Your task to perform on an android device: Search for bose soundsport free on target.com, select the first entry, add it to the cart, then select checkout. Image 0: 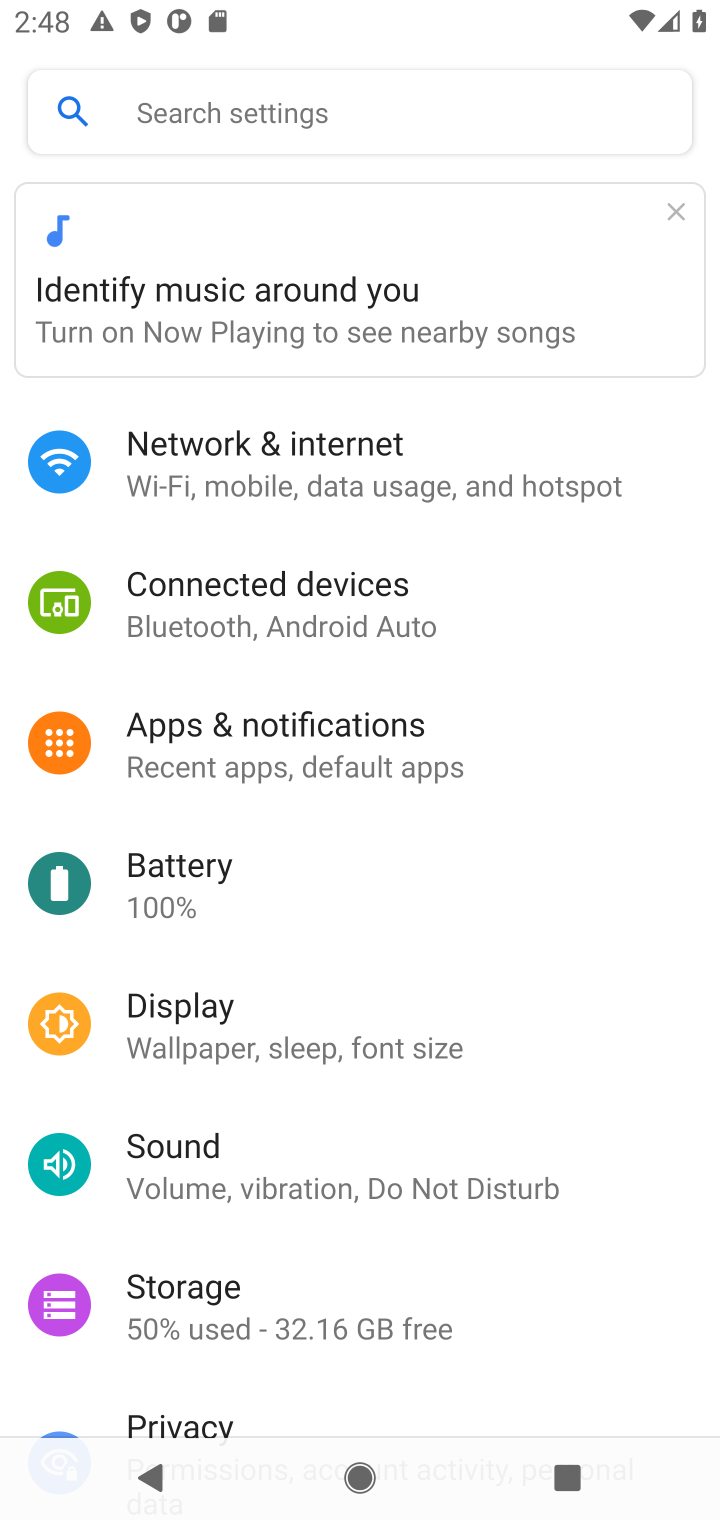
Step 0: press home button
Your task to perform on an android device: Search for bose soundsport free on target.com, select the first entry, add it to the cart, then select checkout. Image 1: 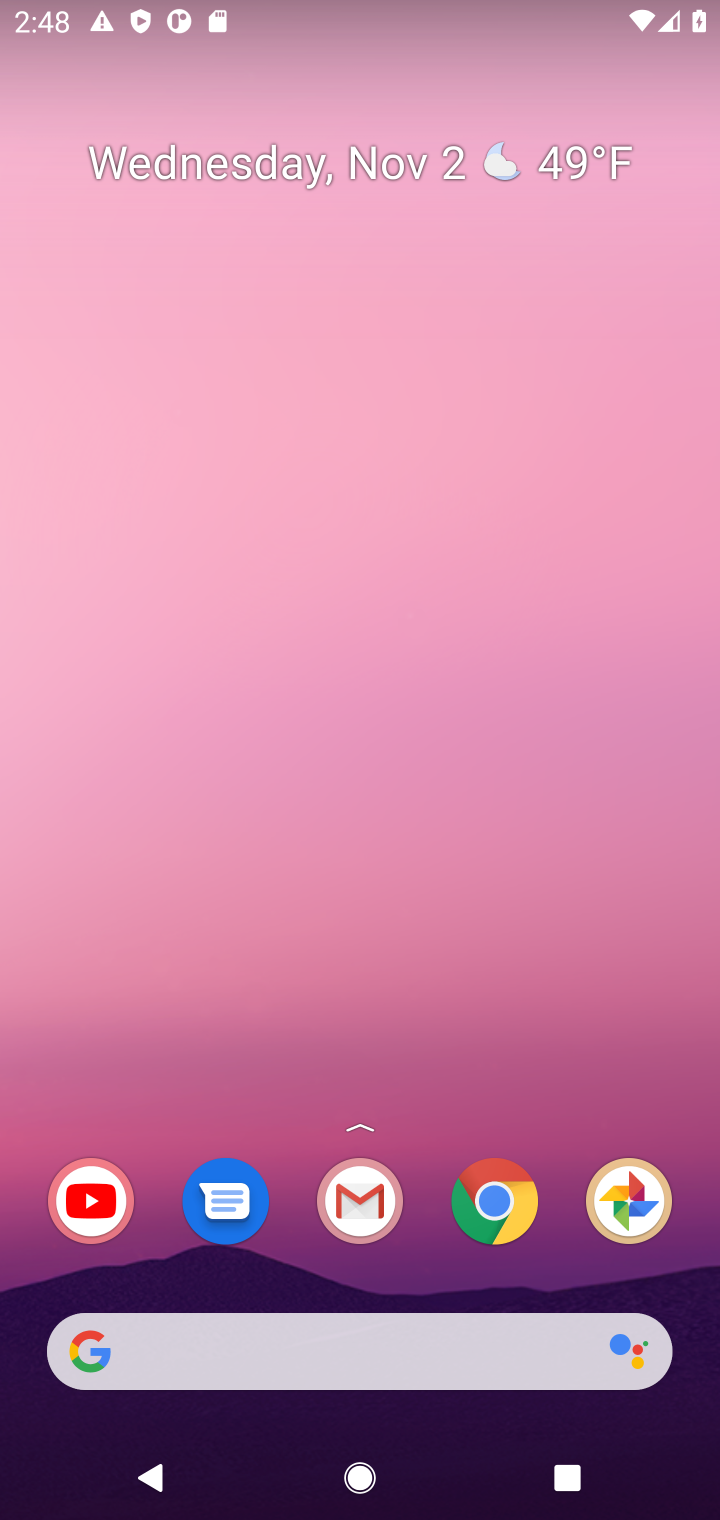
Step 1: click (494, 1199)
Your task to perform on an android device: Search for bose soundsport free on target.com, select the first entry, add it to the cart, then select checkout. Image 2: 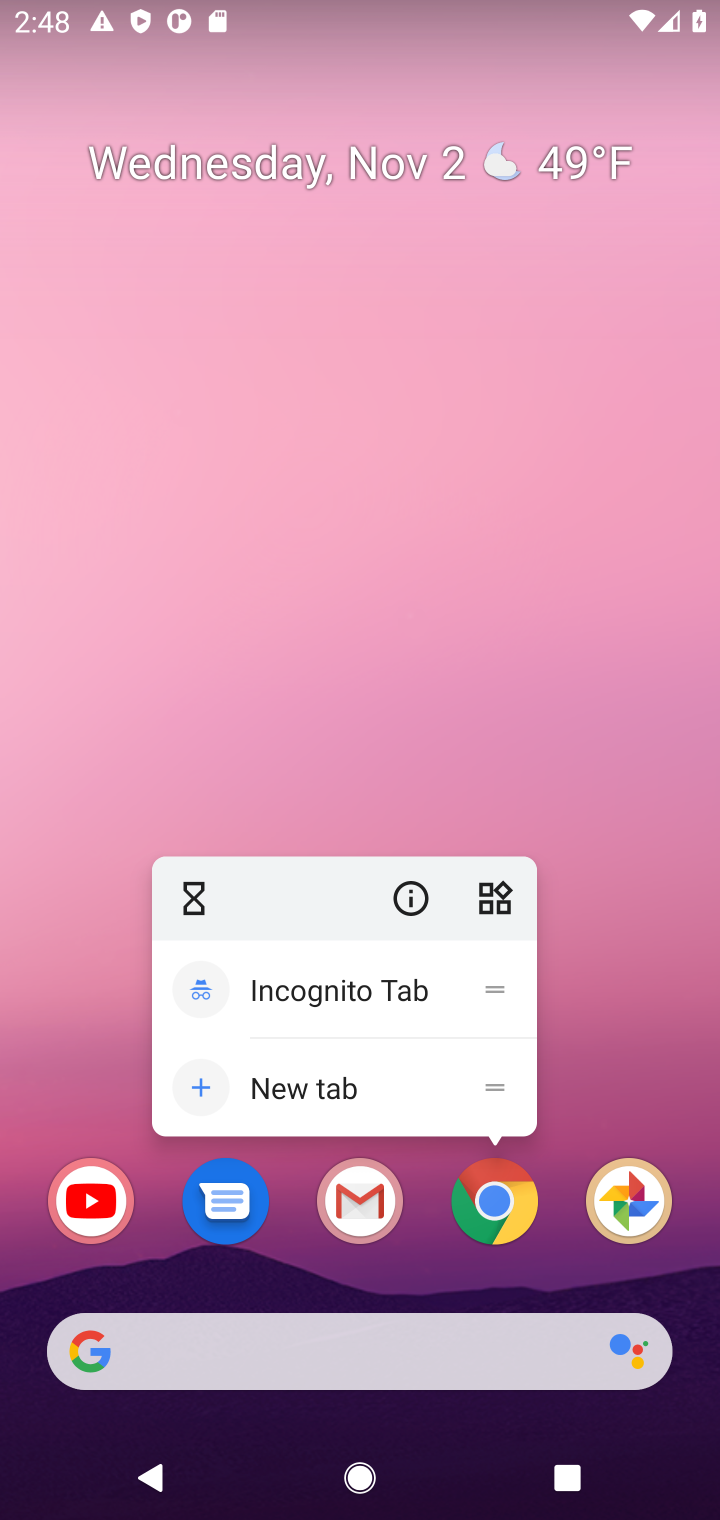
Step 2: click (494, 1201)
Your task to perform on an android device: Search for bose soundsport free on target.com, select the first entry, add it to the cart, then select checkout. Image 3: 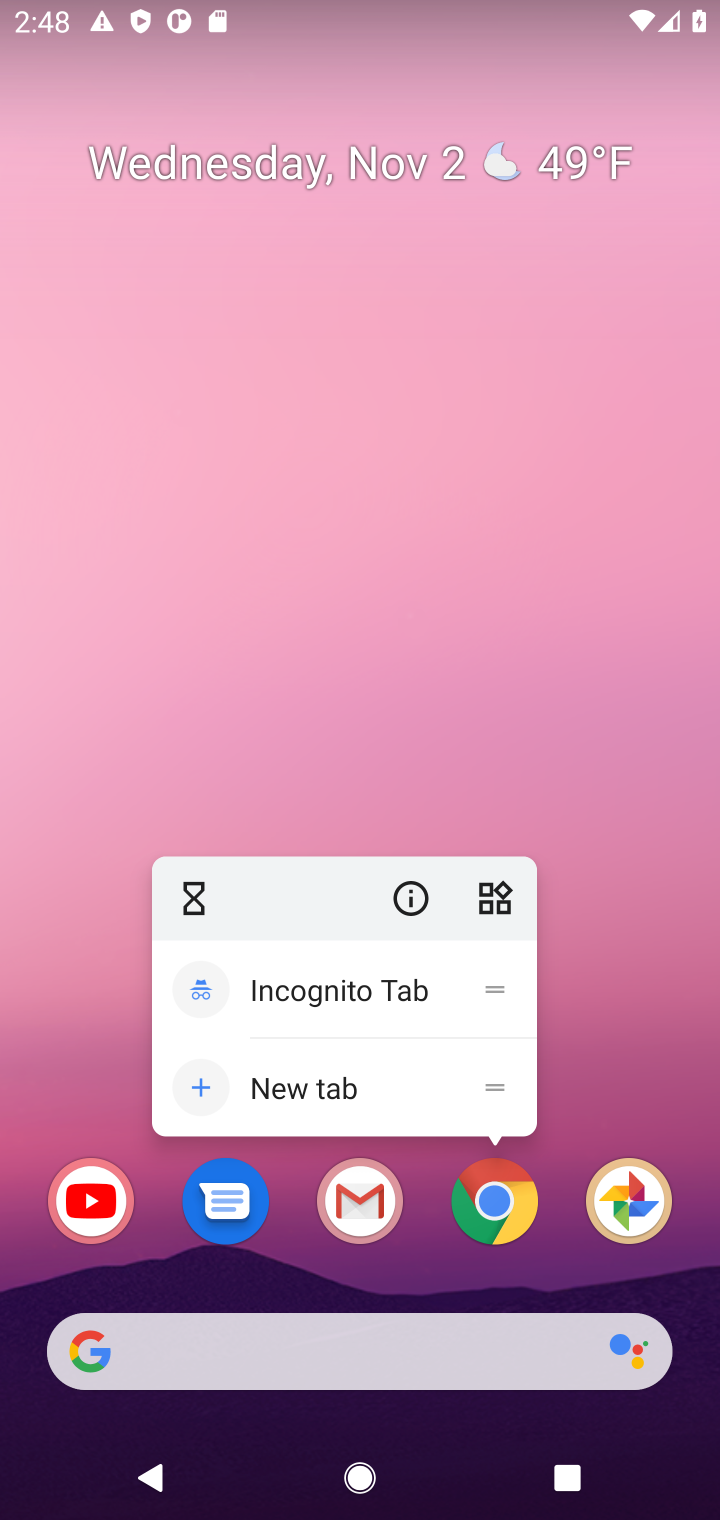
Step 3: click (494, 1198)
Your task to perform on an android device: Search for bose soundsport free on target.com, select the first entry, add it to the cart, then select checkout. Image 4: 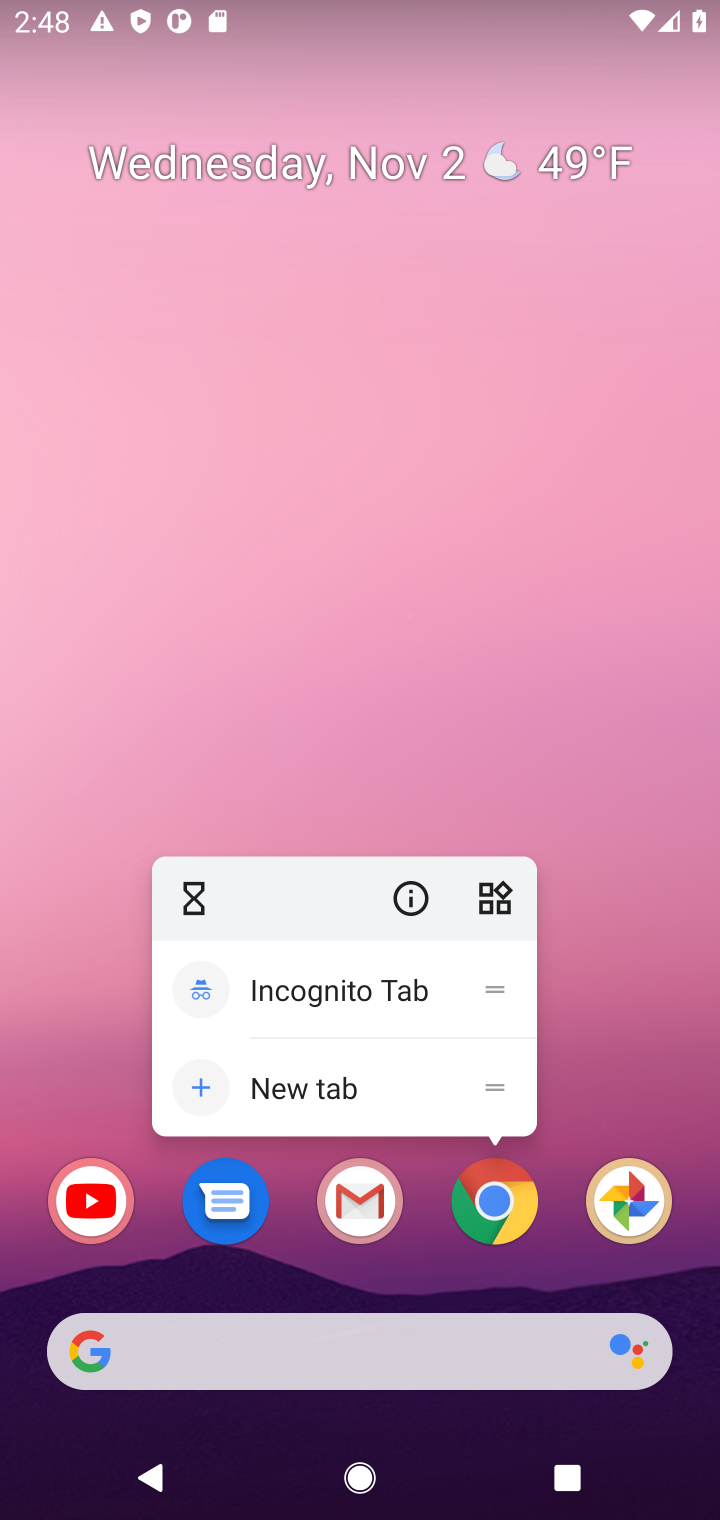
Step 4: click (494, 1198)
Your task to perform on an android device: Search for bose soundsport free on target.com, select the first entry, add it to the cart, then select checkout. Image 5: 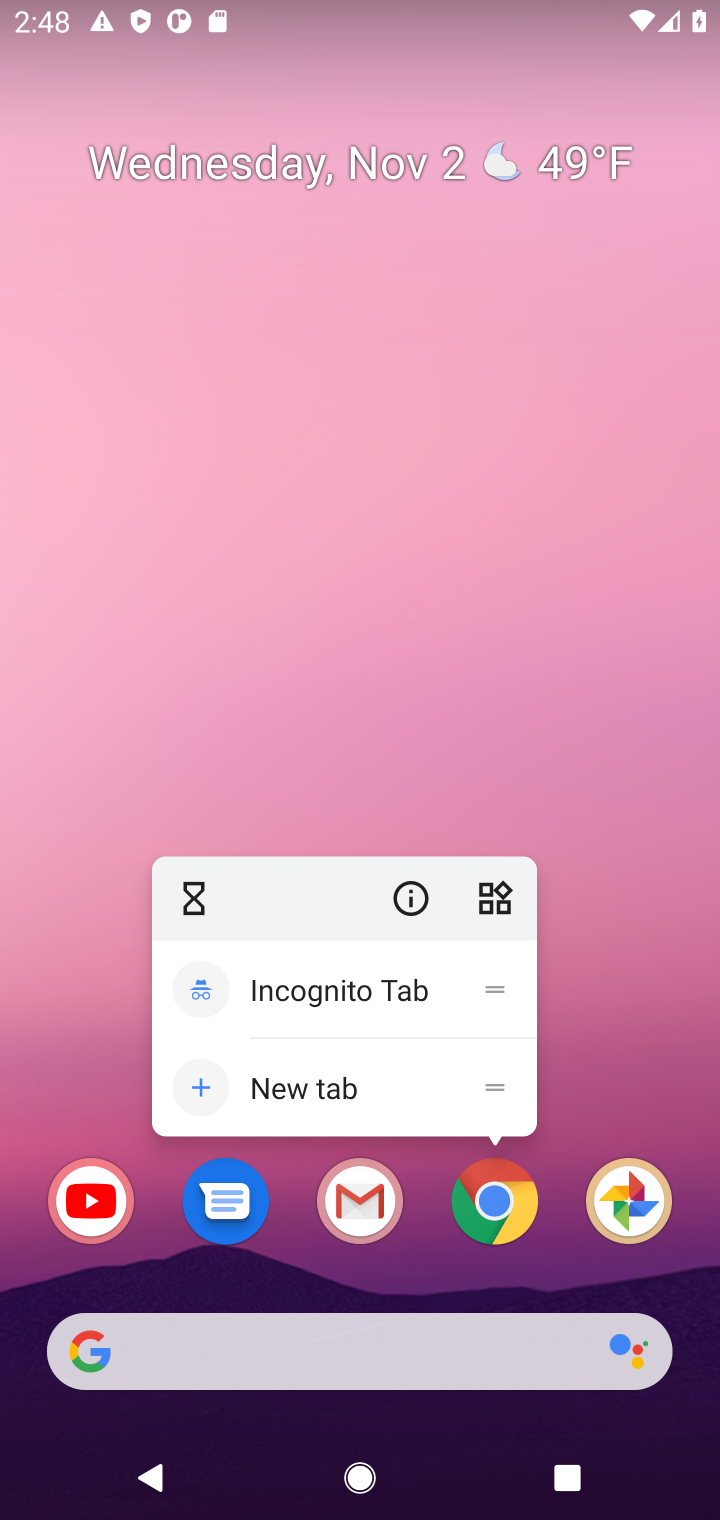
Step 5: click (485, 1212)
Your task to perform on an android device: Search for bose soundsport free on target.com, select the first entry, add it to the cart, then select checkout. Image 6: 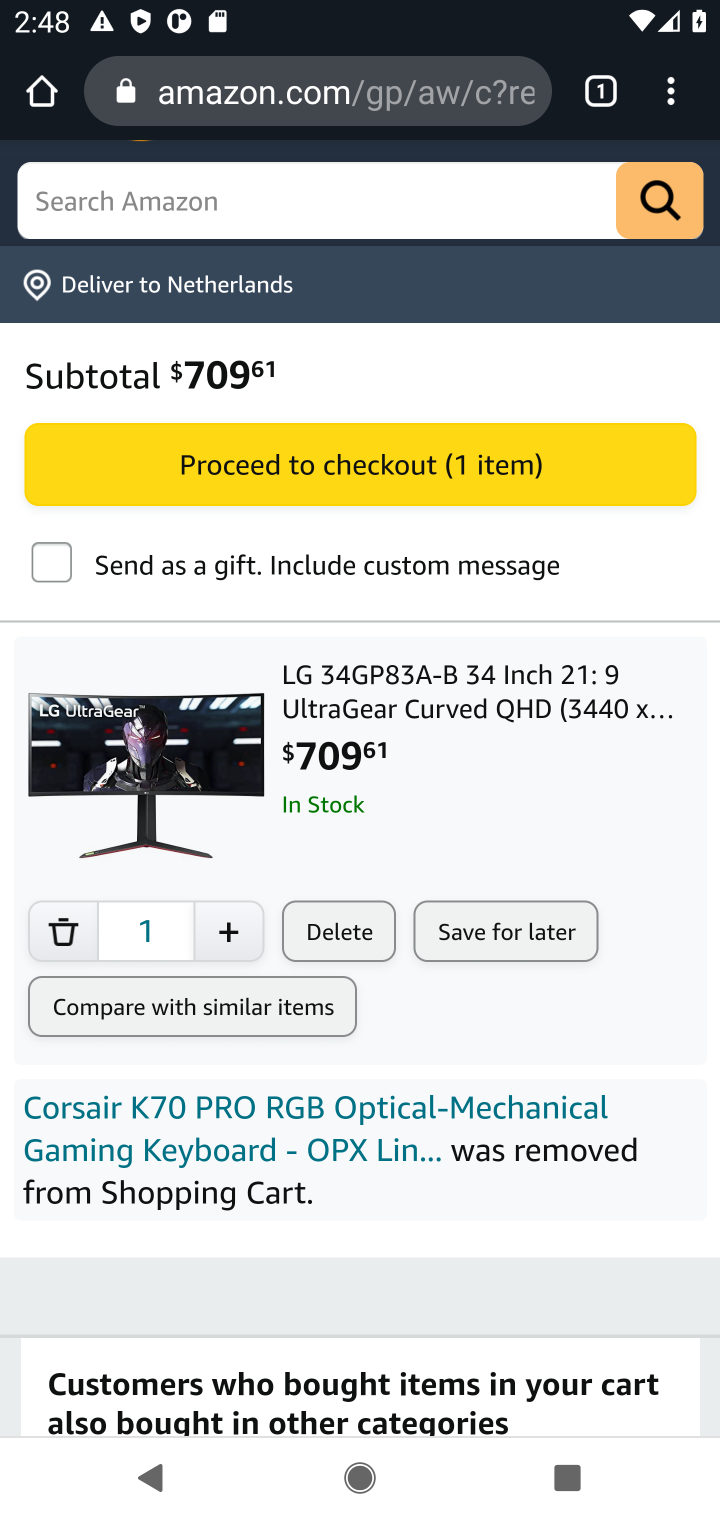
Step 6: click (329, 84)
Your task to perform on an android device: Search for bose soundsport free on target.com, select the first entry, add it to the cart, then select checkout. Image 7: 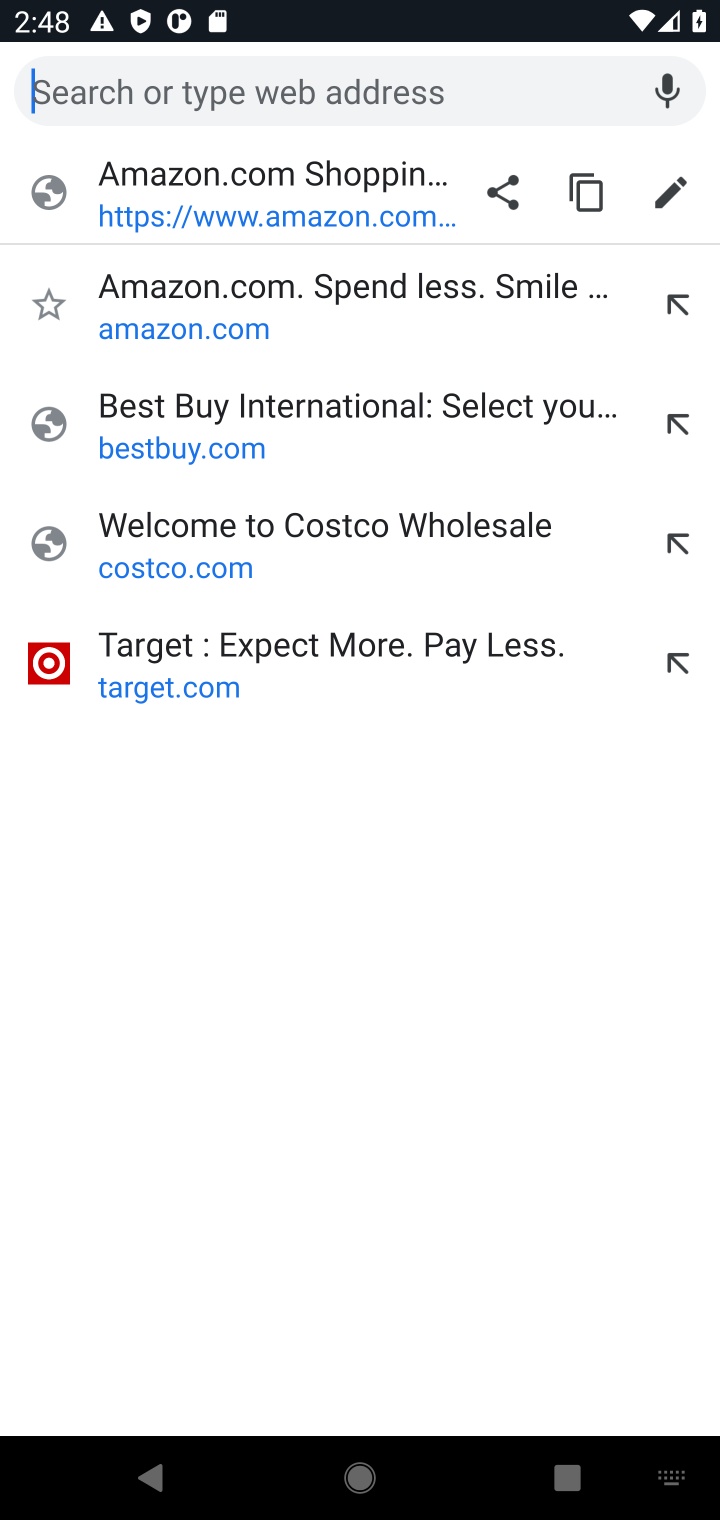
Step 7: click (164, 625)
Your task to perform on an android device: Search for bose soundsport free on target.com, select the first entry, add it to the cart, then select checkout. Image 8: 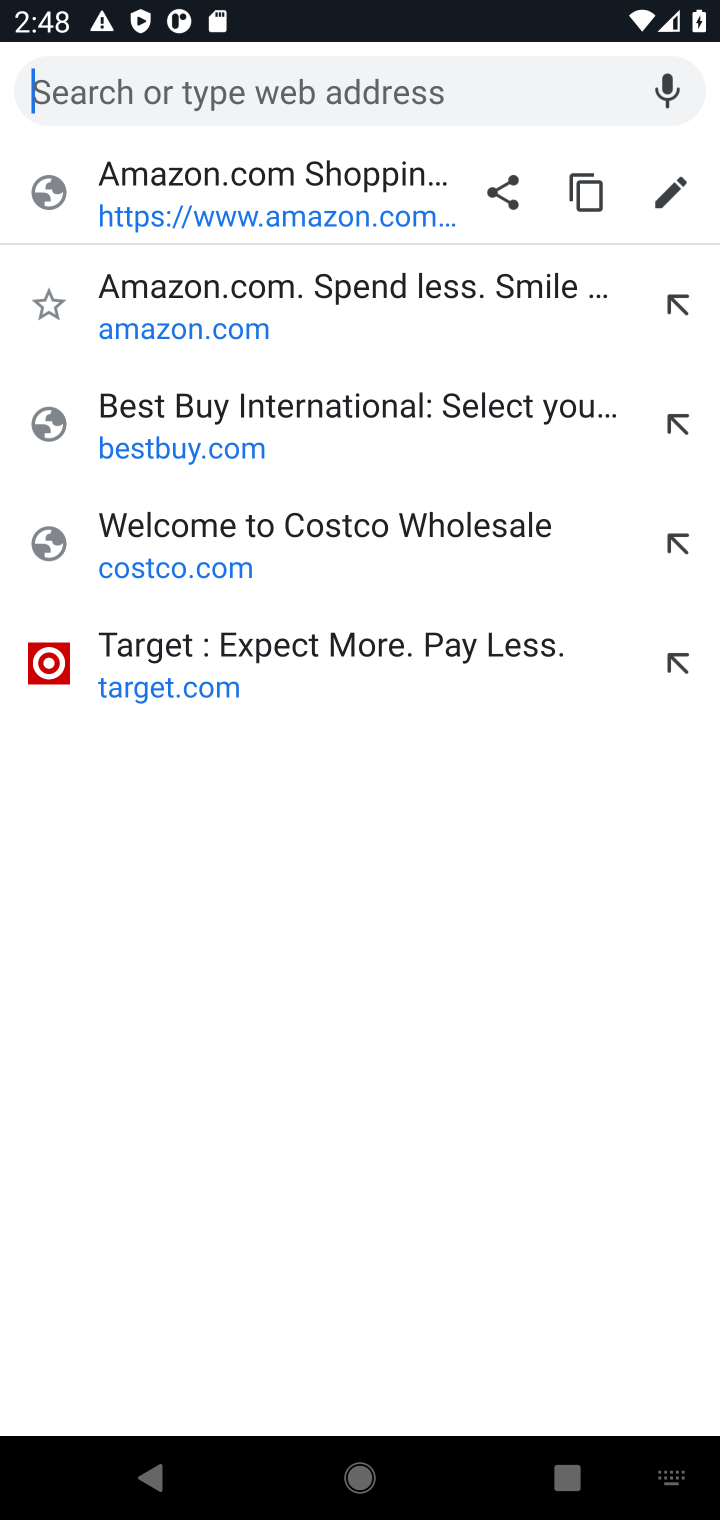
Step 8: click (168, 642)
Your task to perform on an android device: Search for bose soundsport free on target.com, select the first entry, add it to the cart, then select checkout. Image 9: 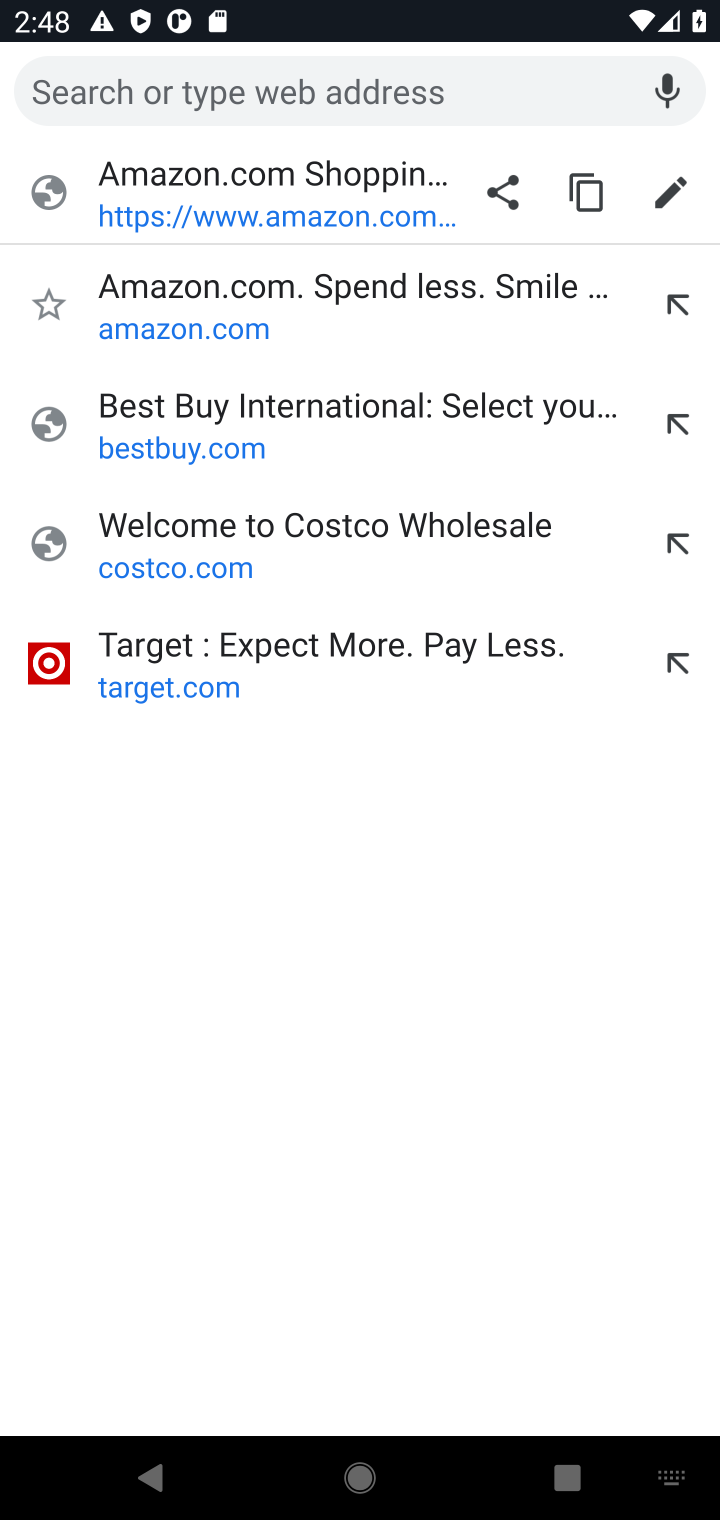
Step 9: click (168, 648)
Your task to perform on an android device: Search for bose soundsport free on target.com, select the first entry, add it to the cart, then select checkout. Image 10: 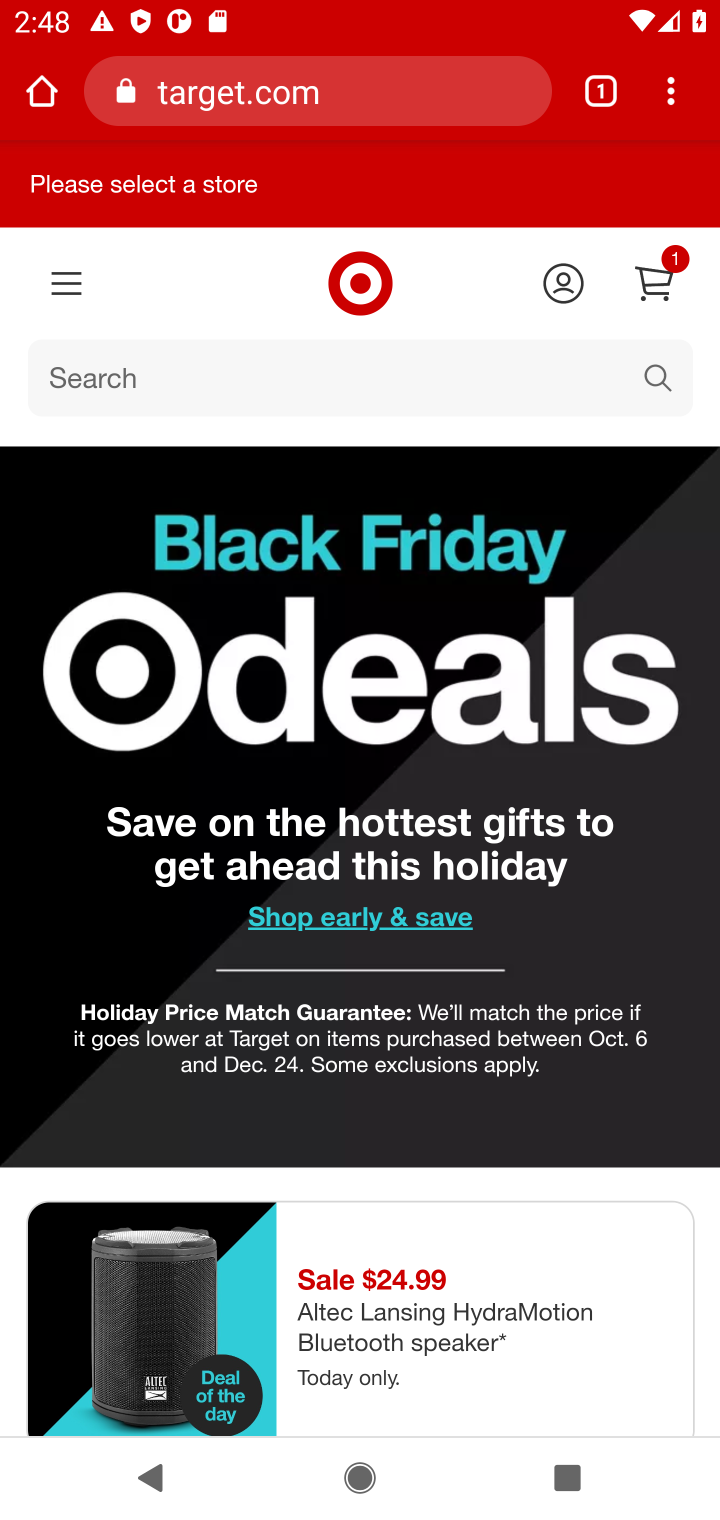
Step 10: click (279, 377)
Your task to perform on an android device: Search for bose soundsport free on target.com, select the first entry, add it to the cart, then select checkout. Image 11: 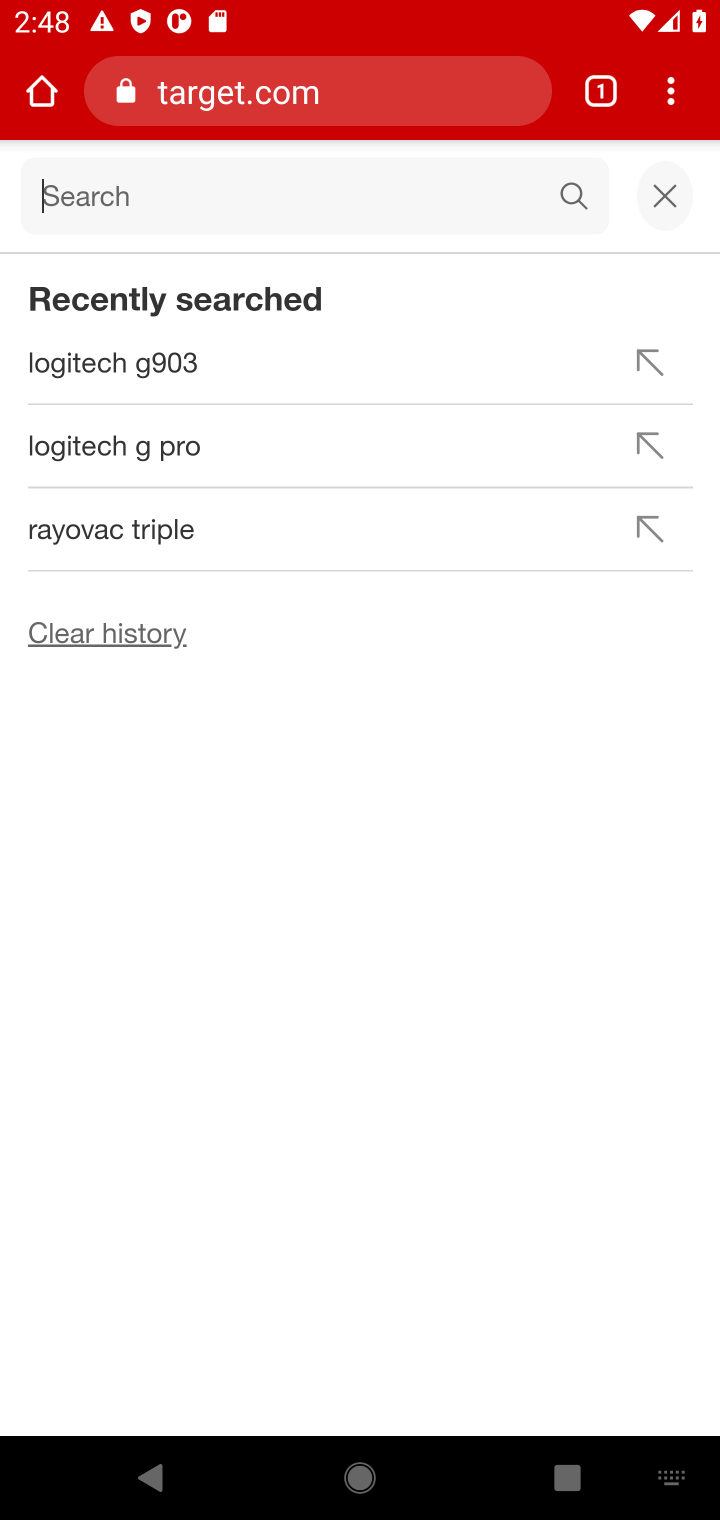
Step 11: click (45, 180)
Your task to perform on an android device: Search for bose soundsport free on target.com, select the first entry, add it to the cart, then select checkout. Image 12: 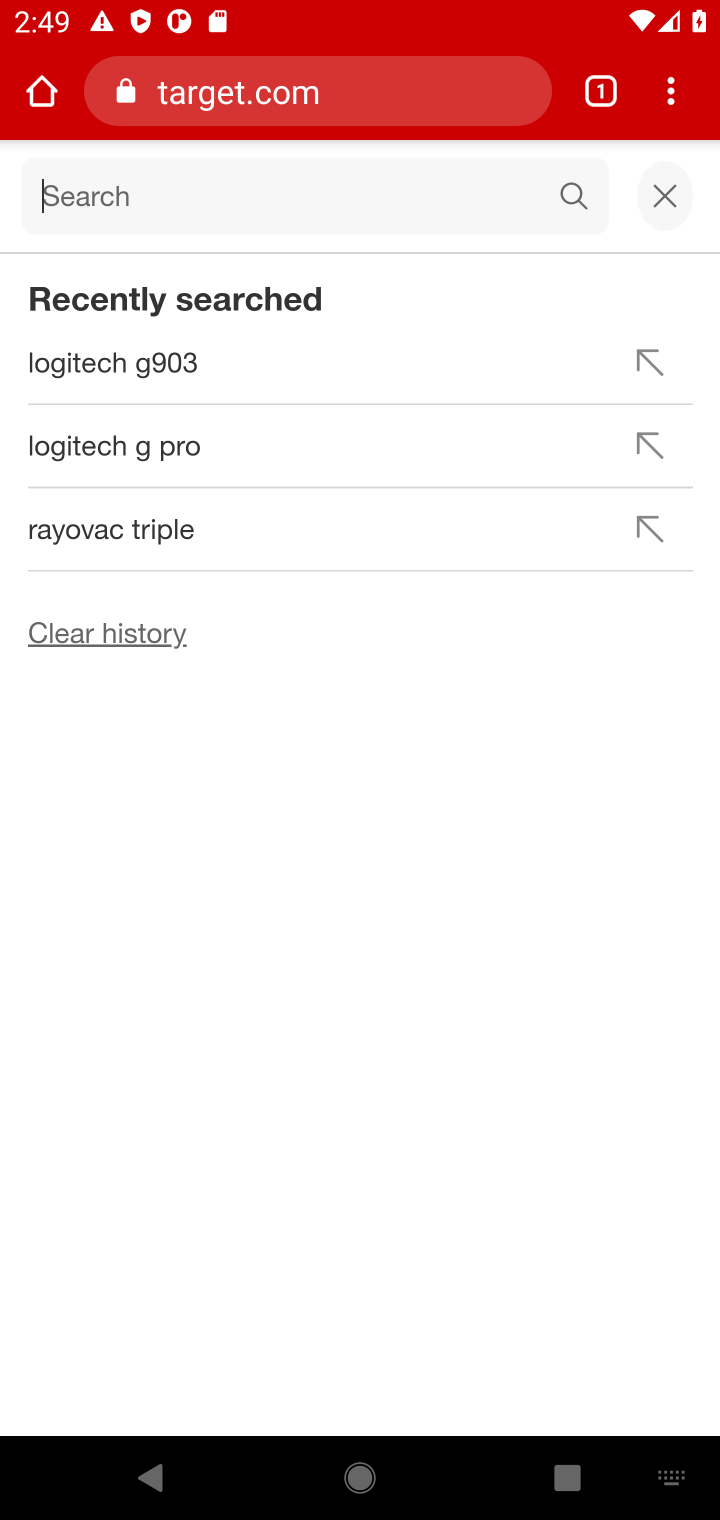
Step 12: type "bose soundsport free "
Your task to perform on an android device: Search for bose soundsport free on target.com, select the first entry, add it to the cart, then select checkout. Image 13: 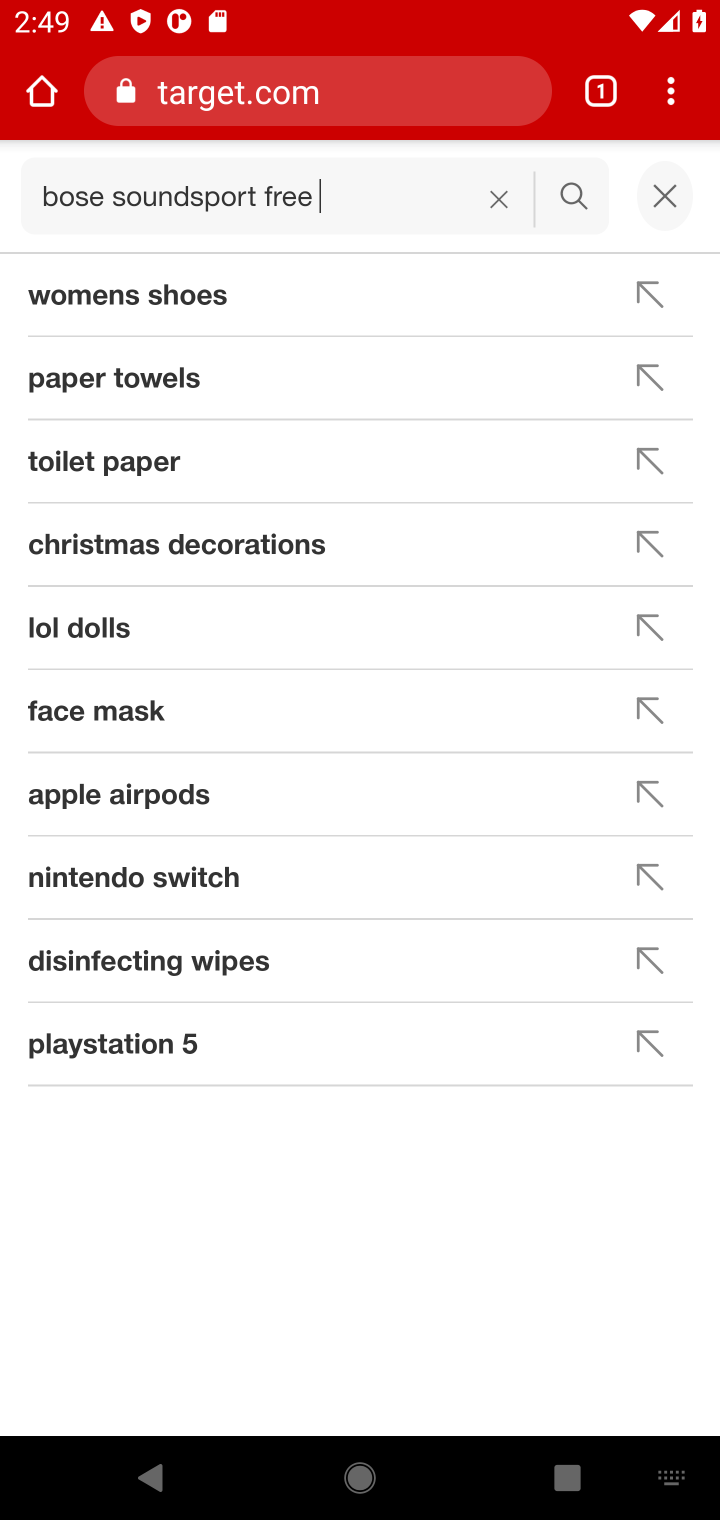
Step 13: press enter
Your task to perform on an android device: Search for bose soundsport free on target.com, select the first entry, add it to the cart, then select checkout. Image 14: 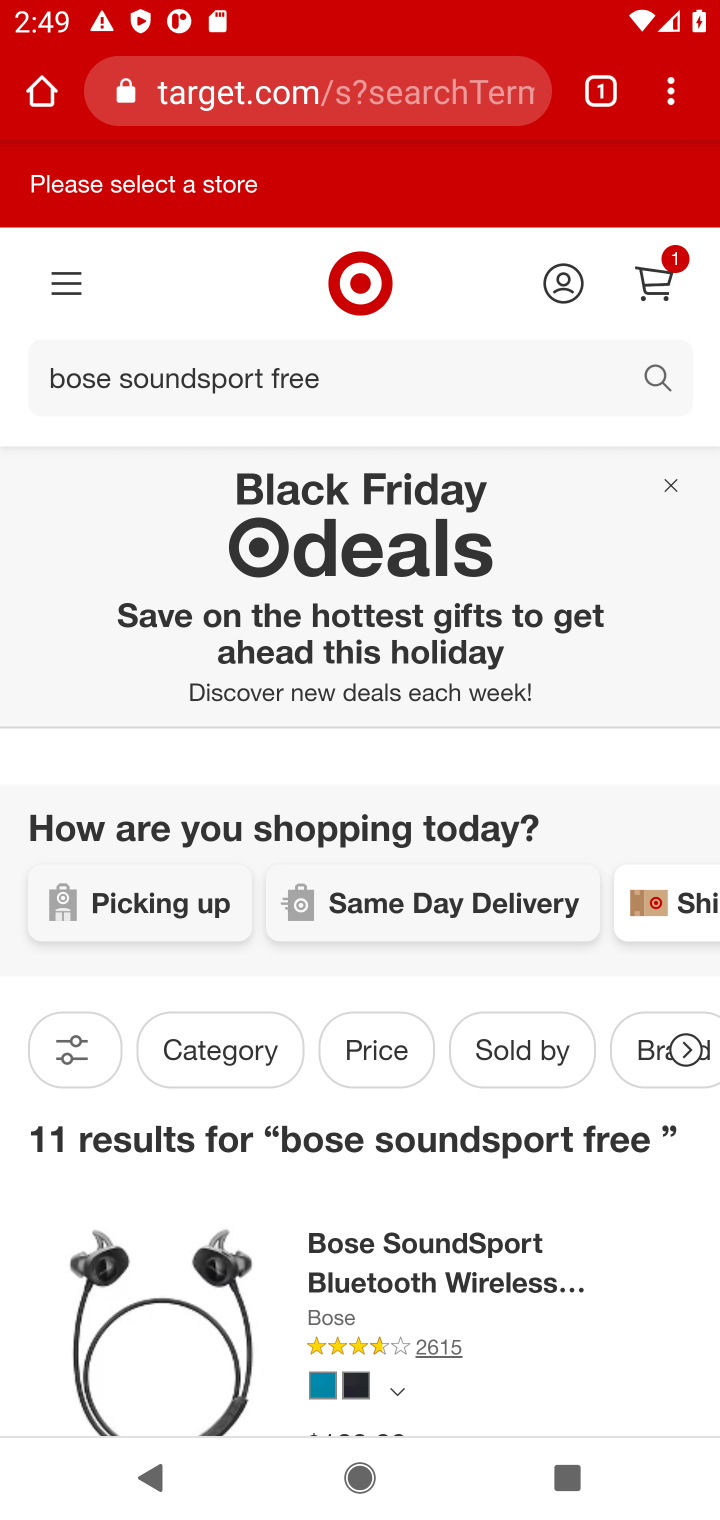
Step 14: drag from (305, 1194) to (580, 554)
Your task to perform on an android device: Search for bose soundsport free on target.com, select the first entry, add it to the cart, then select checkout. Image 15: 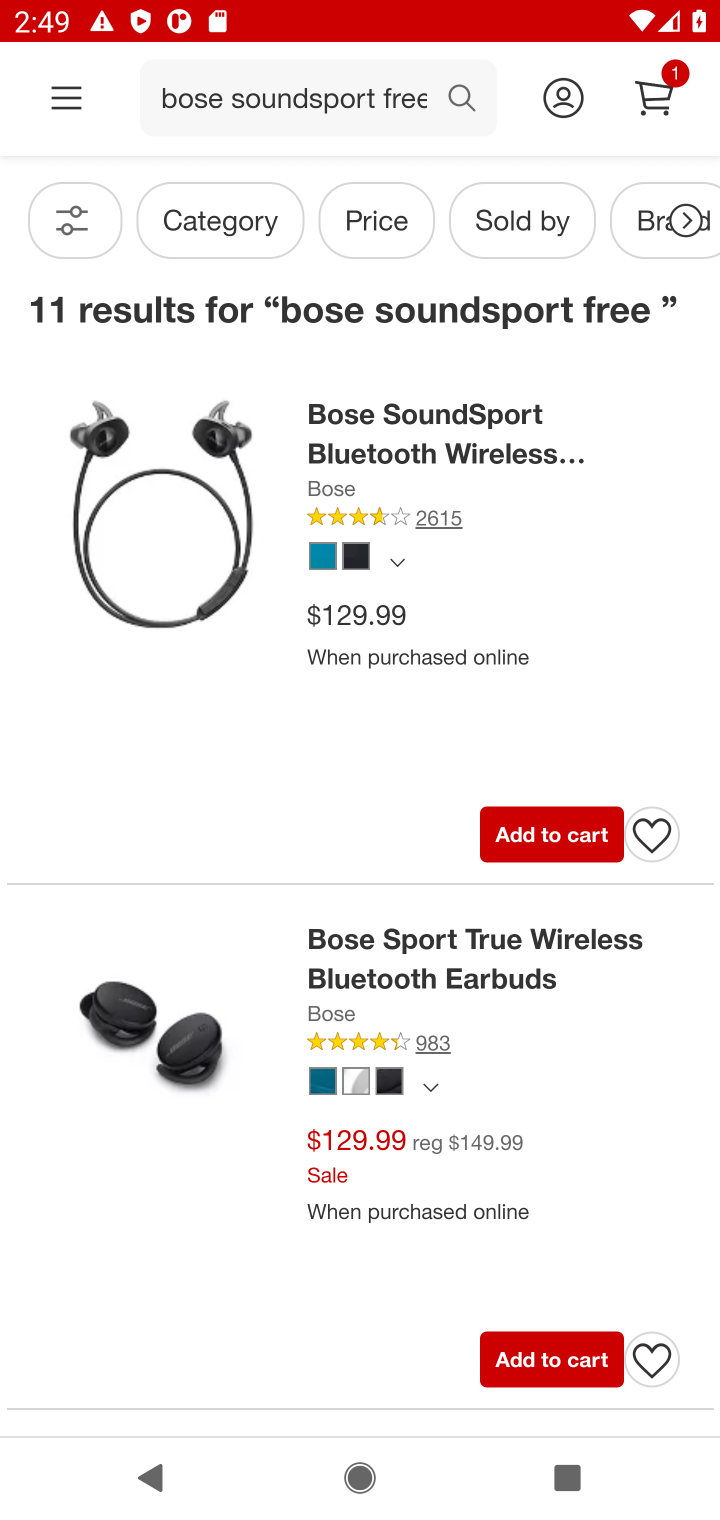
Step 15: click (503, 456)
Your task to perform on an android device: Search for bose soundsport free on target.com, select the first entry, add it to the cart, then select checkout. Image 16: 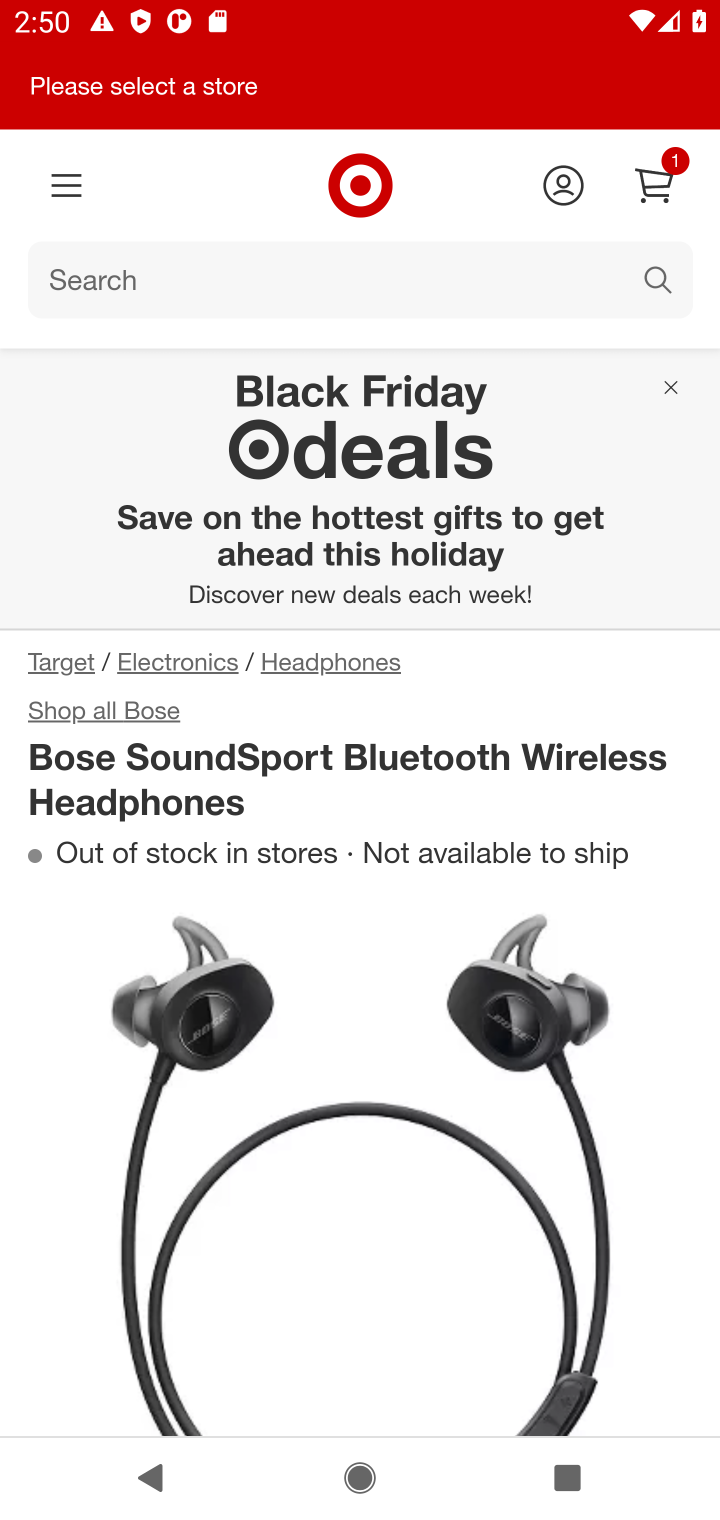
Step 16: drag from (260, 1105) to (522, 332)
Your task to perform on an android device: Search for bose soundsport free on target.com, select the first entry, add it to the cart, then select checkout. Image 17: 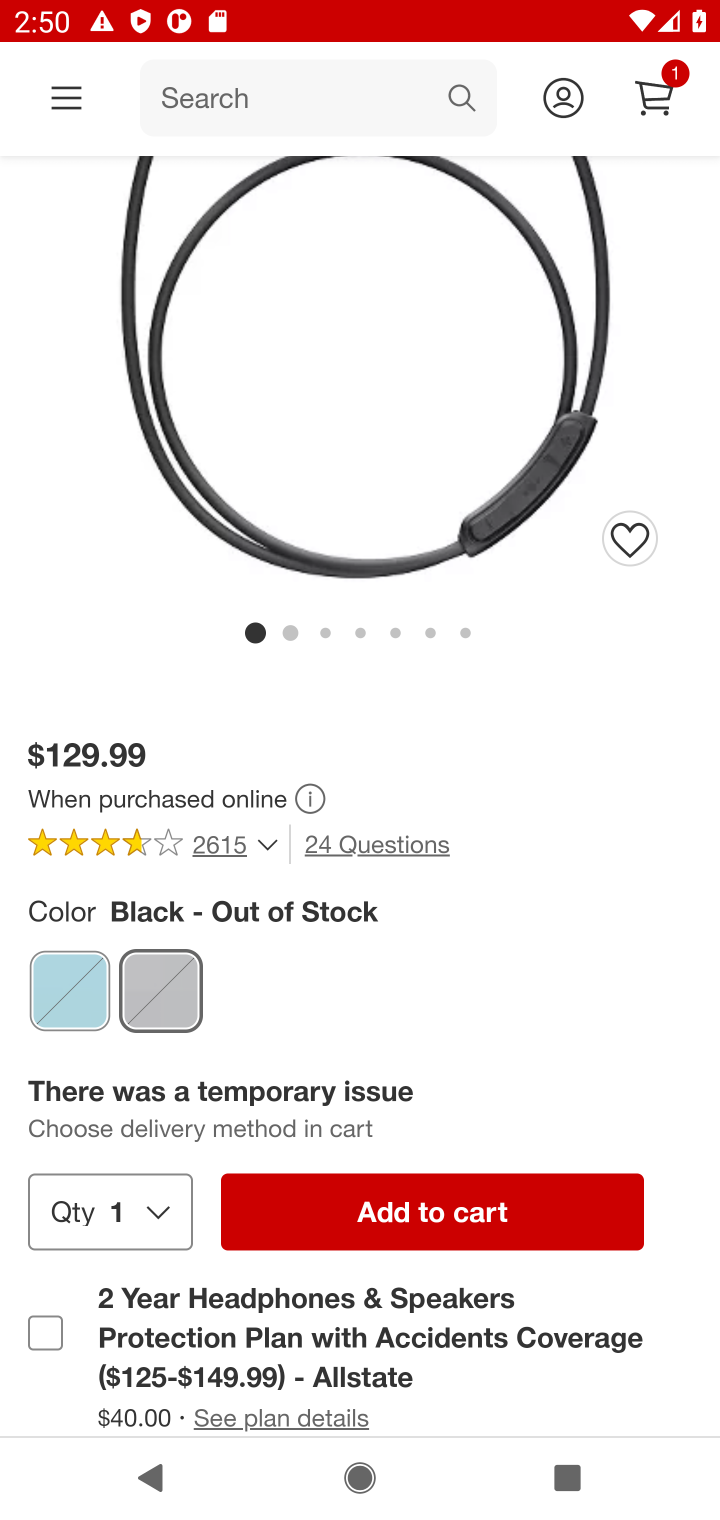
Step 17: click (399, 1218)
Your task to perform on an android device: Search for bose soundsport free on target.com, select the first entry, add it to the cart, then select checkout. Image 18: 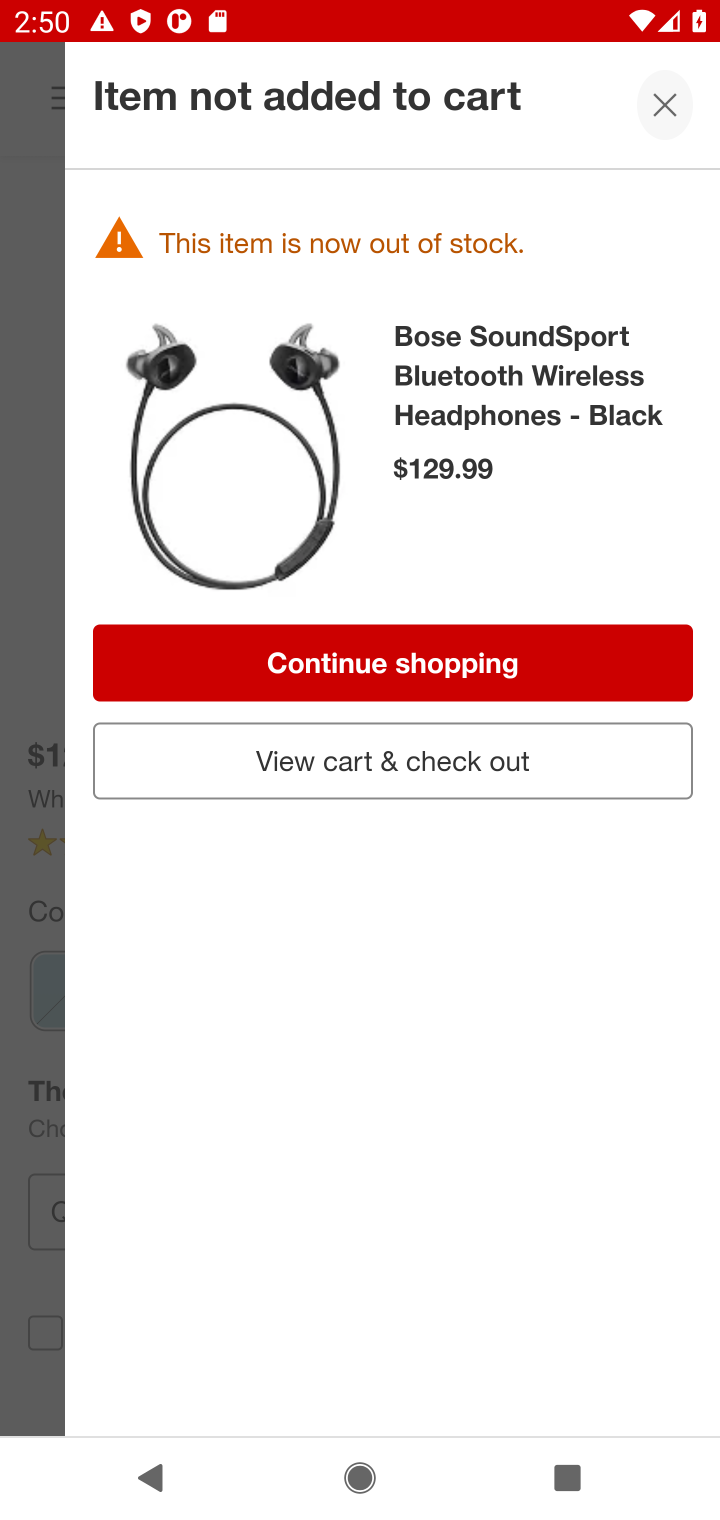
Step 18: click (433, 761)
Your task to perform on an android device: Search for bose soundsport free on target.com, select the first entry, add it to the cart, then select checkout. Image 19: 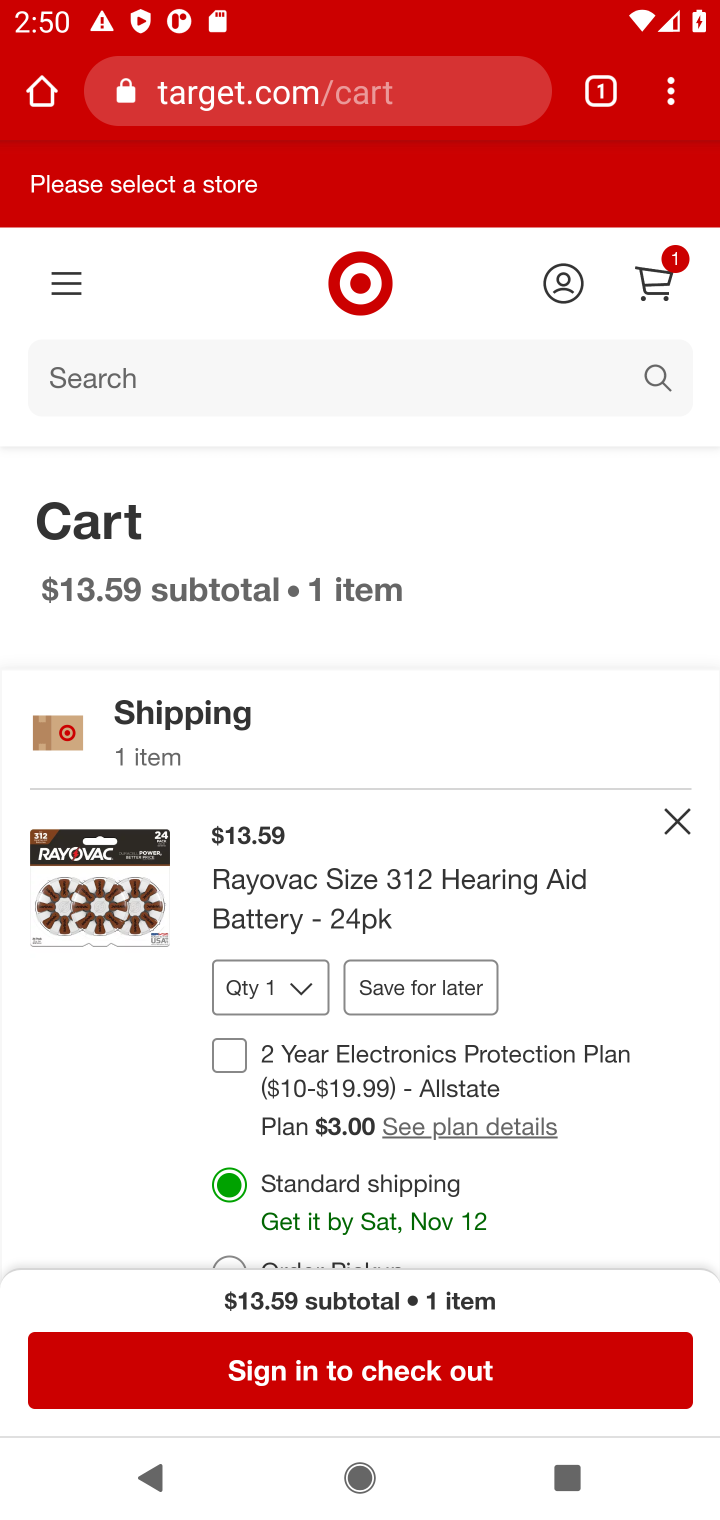
Step 19: click (677, 816)
Your task to perform on an android device: Search for bose soundsport free on target.com, select the first entry, add it to the cart, then select checkout. Image 20: 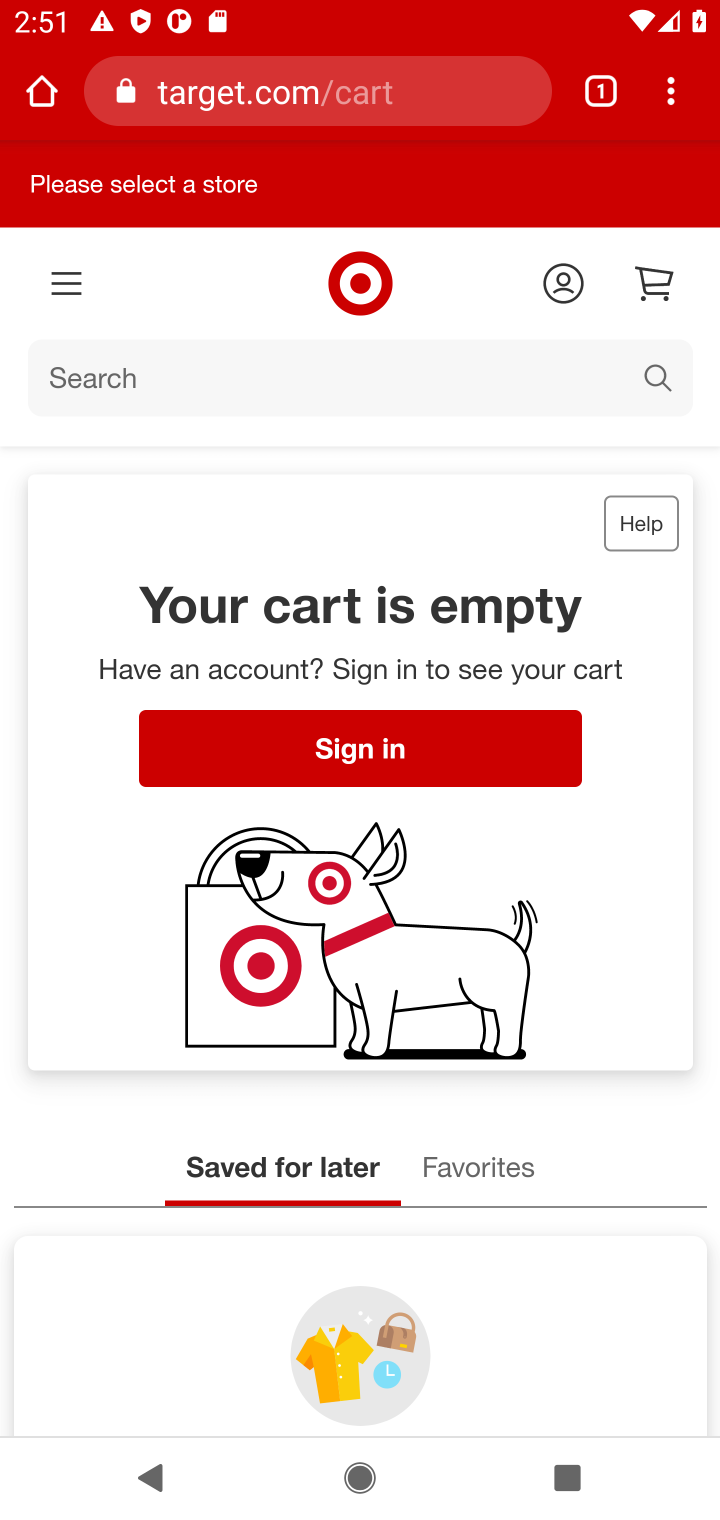
Step 20: press back button
Your task to perform on an android device: Search for bose soundsport free on target.com, select the first entry, add it to the cart, then select checkout. Image 21: 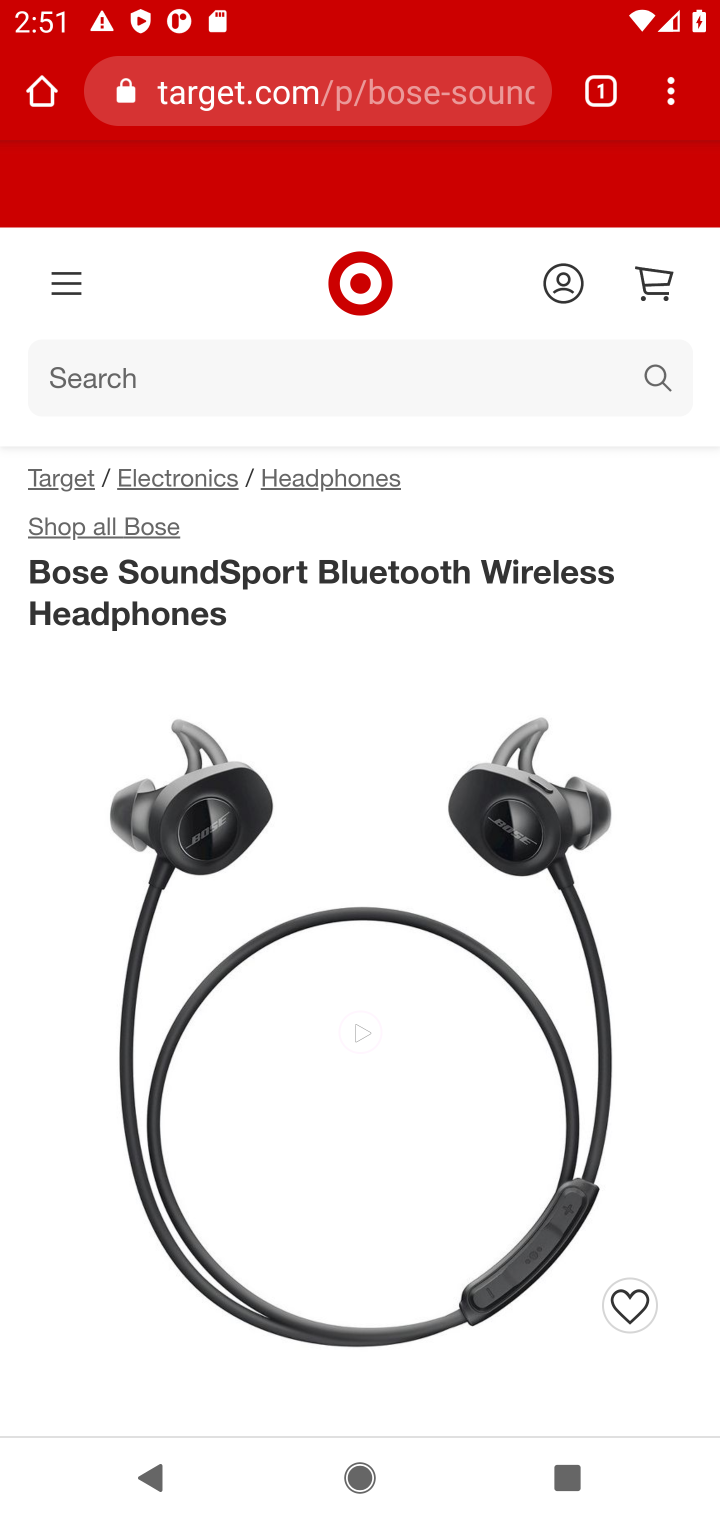
Step 21: drag from (344, 1155) to (435, 177)
Your task to perform on an android device: Search for bose soundsport free on target.com, select the first entry, add it to the cart, then select checkout. Image 22: 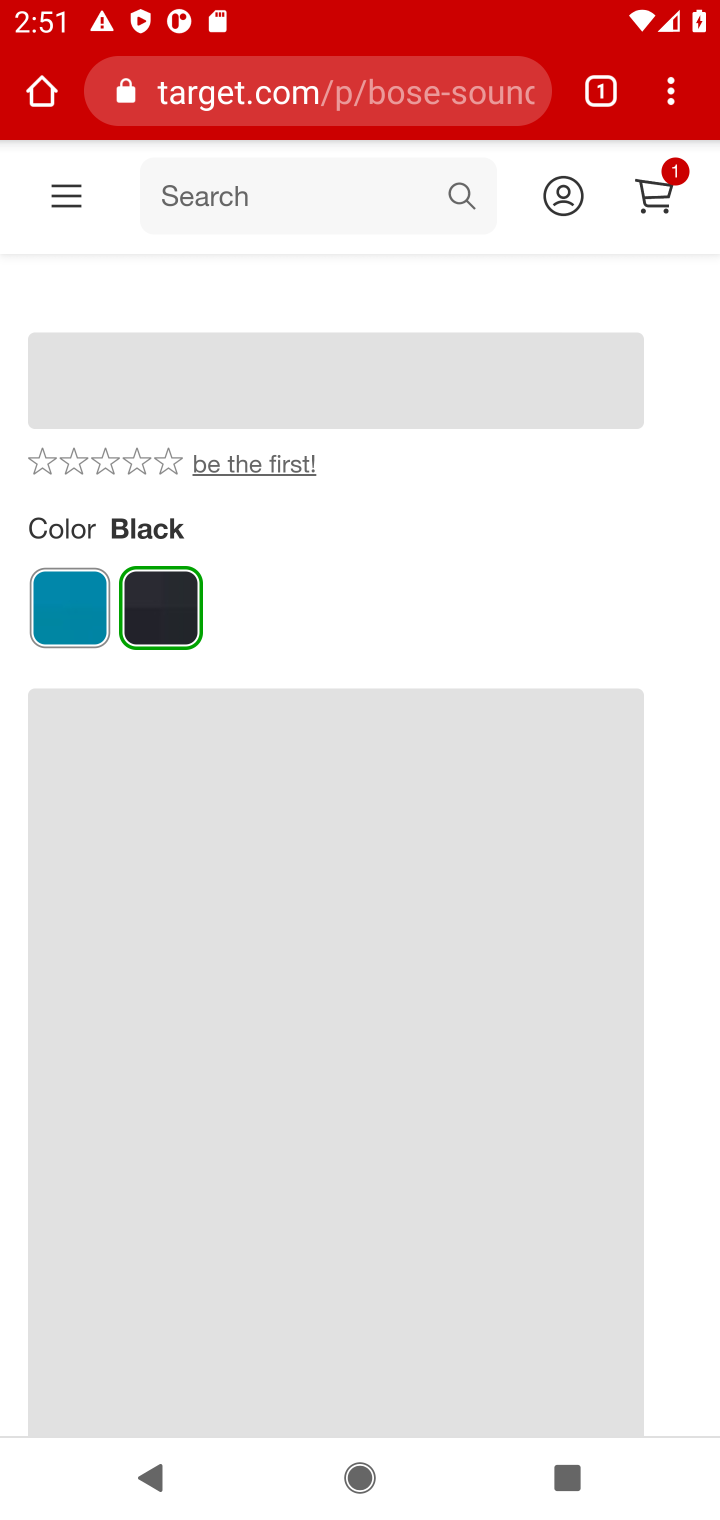
Step 22: drag from (262, 878) to (392, 220)
Your task to perform on an android device: Search for bose soundsport free on target.com, select the first entry, add it to the cart, then select checkout. Image 23: 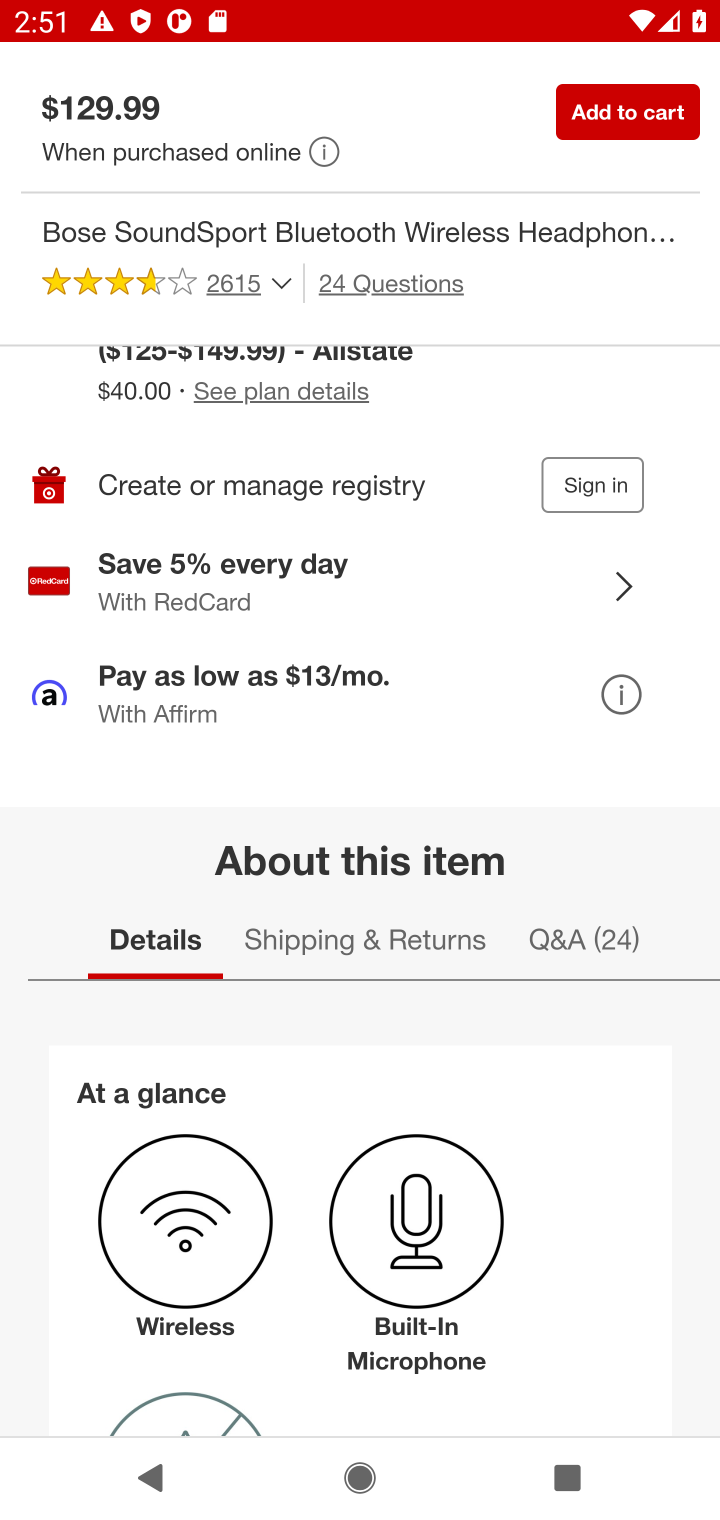
Step 23: click (657, 84)
Your task to perform on an android device: Search for bose soundsport free on target.com, select the first entry, add it to the cart, then select checkout. Image 24: 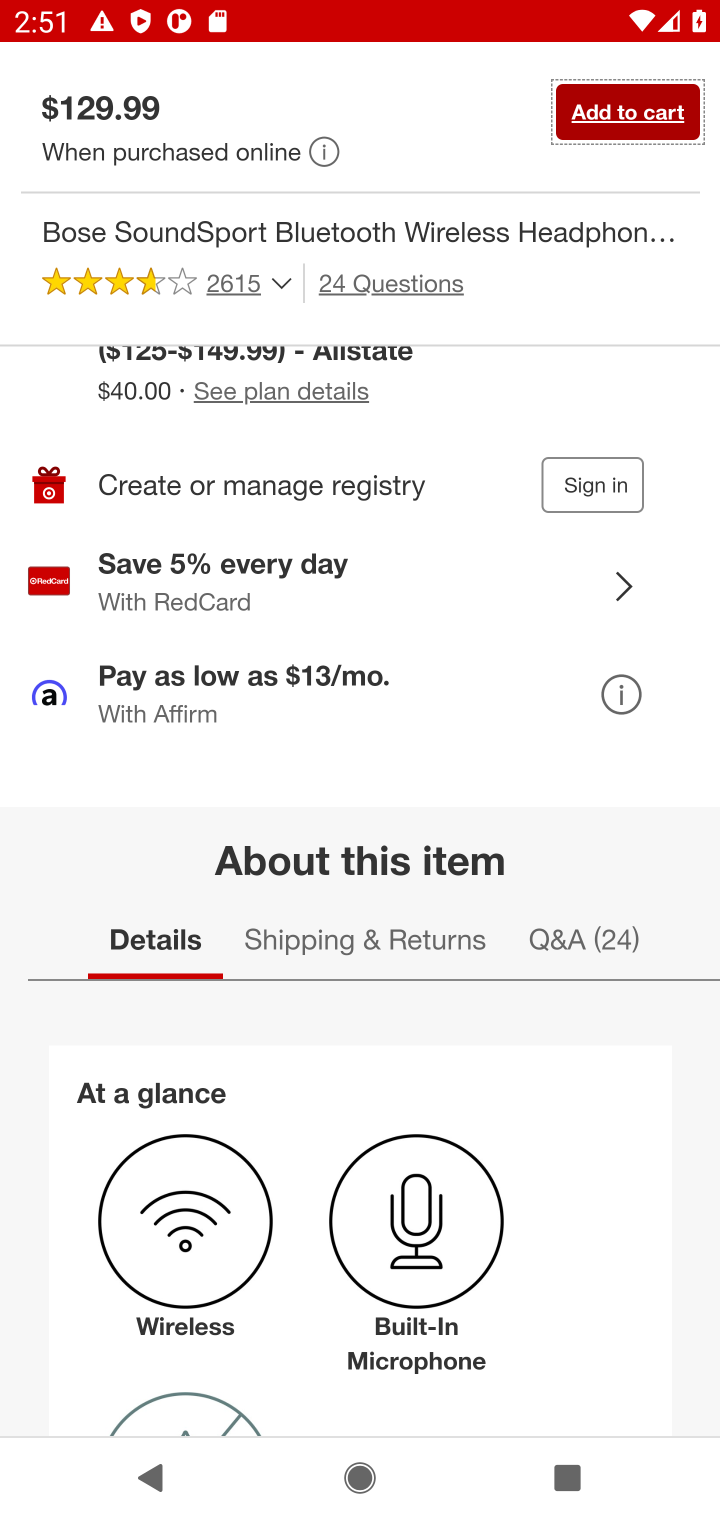
Step 24: click (640, 115)
Your task to perform on an android device: Search for bose soundsport free on target.com, select the first entry, add it to the cart, then select checkout. Image 25: 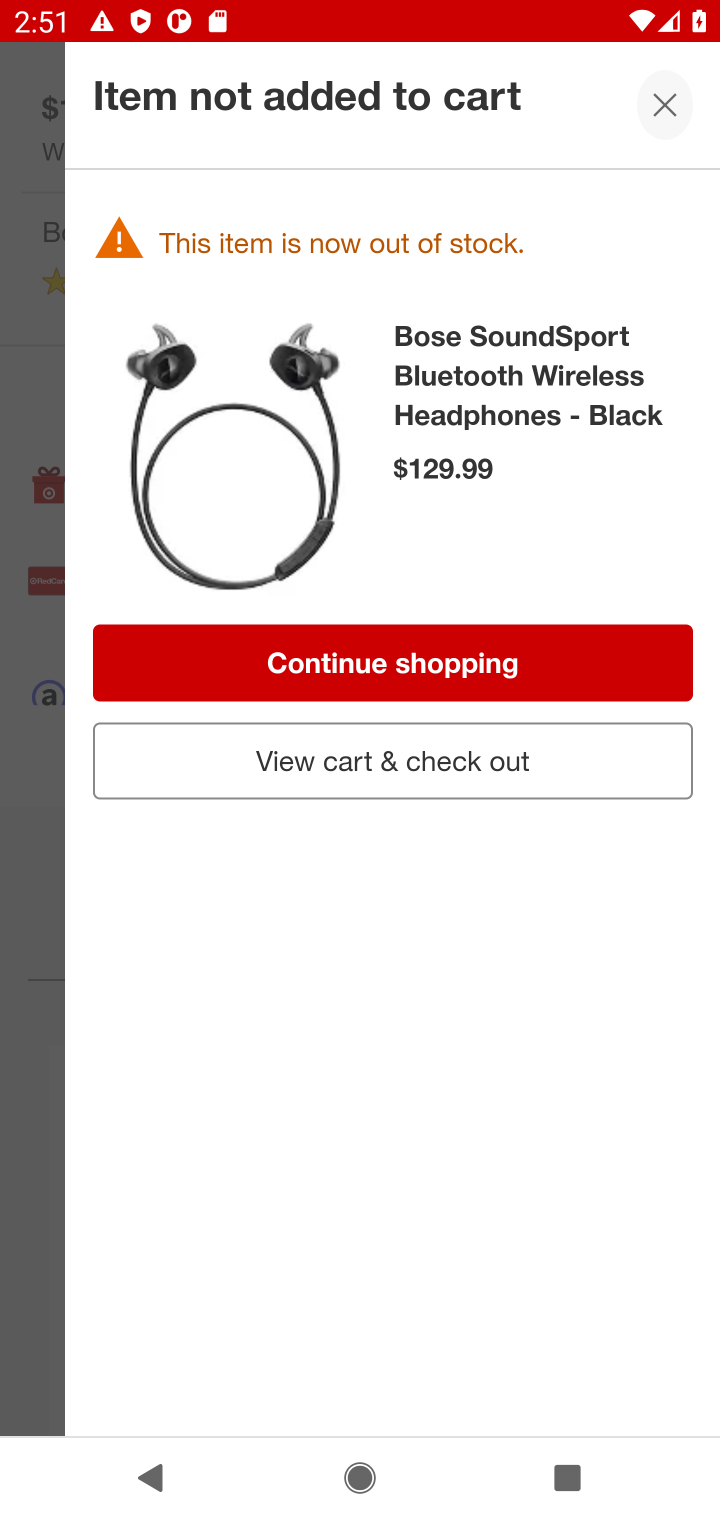
Step 25: click (374, 760)
Your task to perform on an android device: Search for bose soundsport free on target.com, select the first entry, add it to the cart, then select checkout. Image 26: 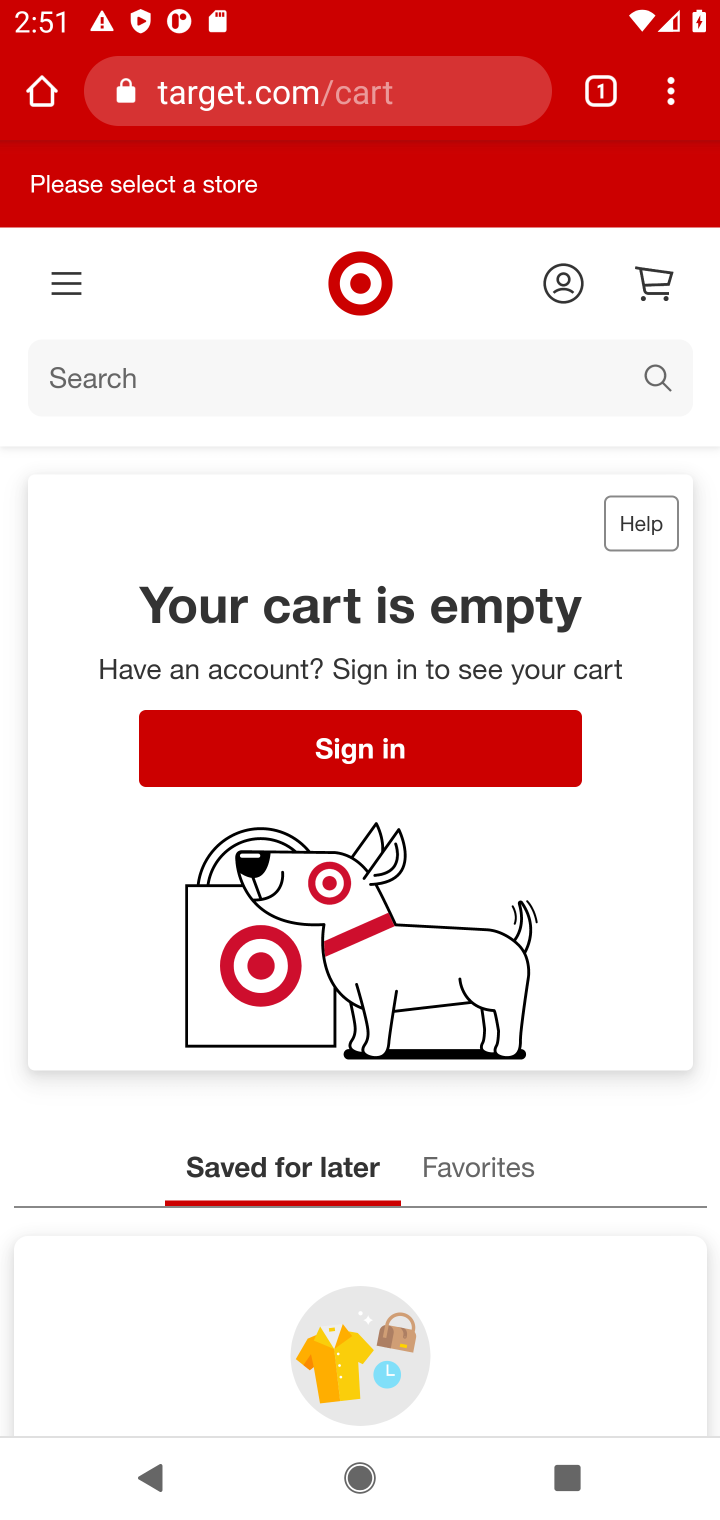
Step 26: task complete